Your task to perform on an android device: Toggle the flashlight Image 0: 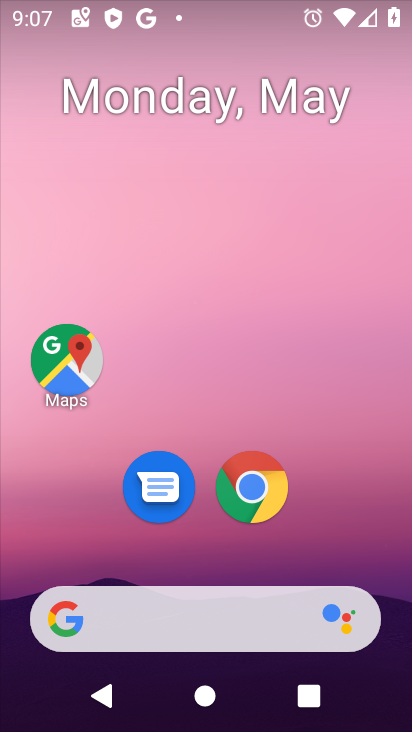
Step 0: drag from (192, 548) to (256, 78)
Your task to perform on an android device: Toggle the flashlight Image 1: 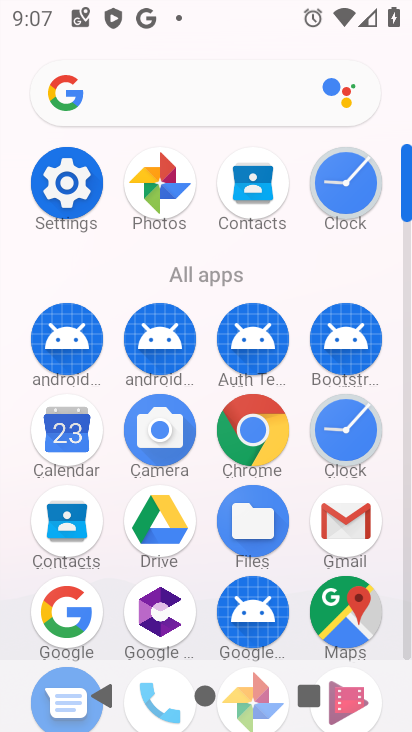
Step 1: click (76, 180)
Your task to perform on an android device: Toggle the flashlight Image 2: 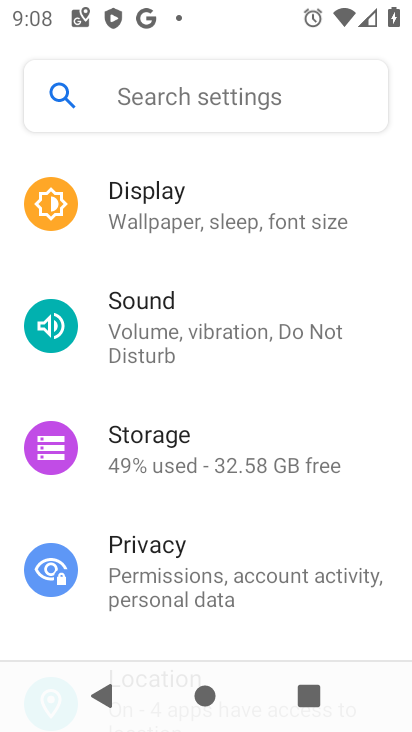
Step 2: task complete